Your task to perform on an android device: Add "energizer triple a" to the cart on bestbuy.com Image 0: 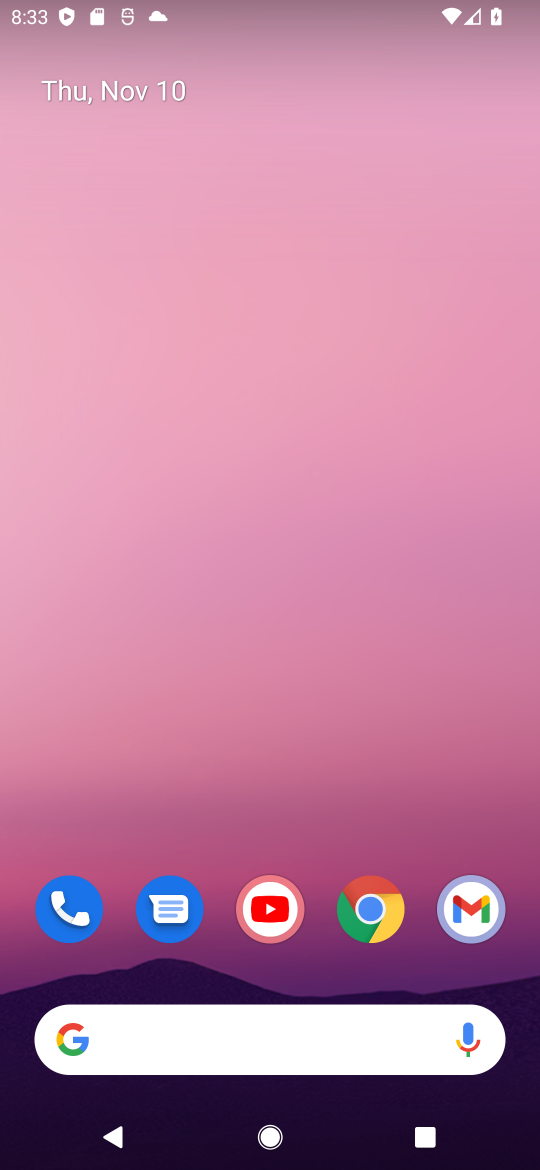
Step 0: drag from (222, 897) to (326, 188)
Your task to perform on an android device: Add "energizer triple a" to the cart on bestbuy.com Image 1: 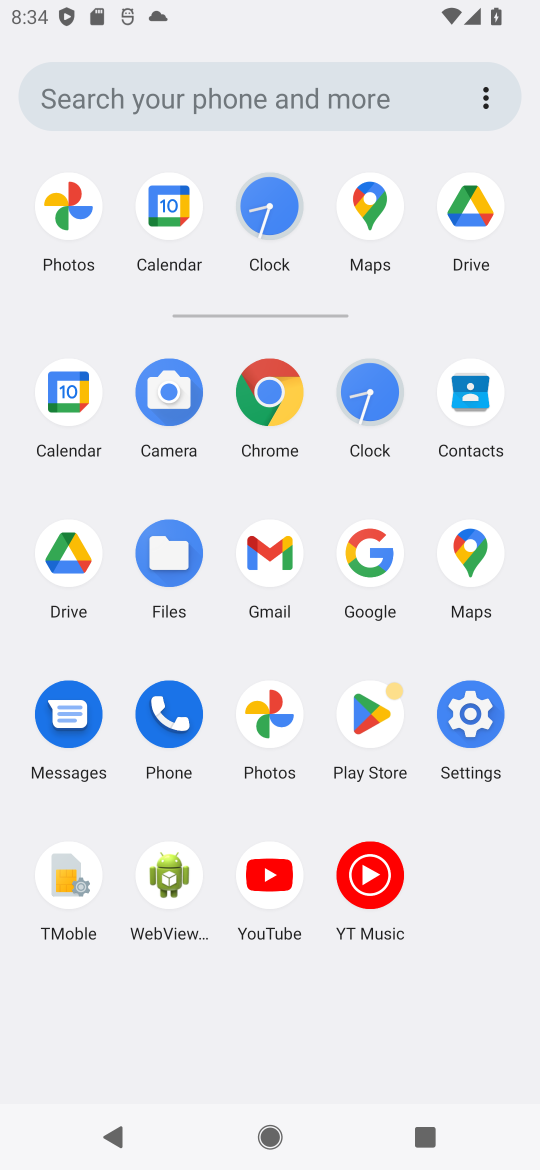
Step 1: click (374, 549)
Your task to perform on an android device: Add "energizer triple a" to the cart on bestbuy.com Image 2: 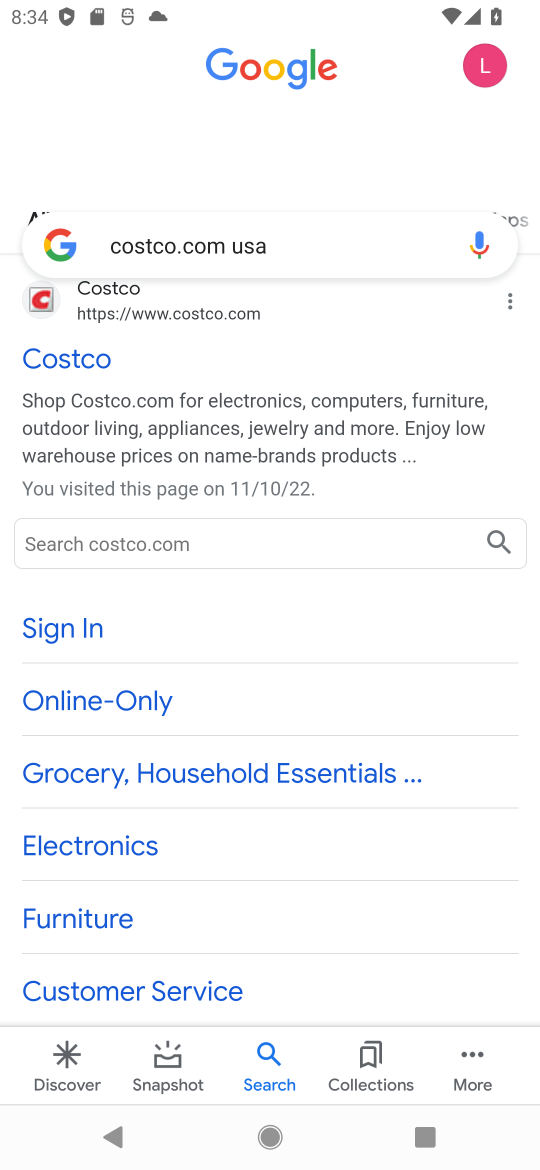
Step 2: click (185, 245)
Your task to perform on an android device: Add "energizer triple a" to the cart on bestbuy.com Image 3: 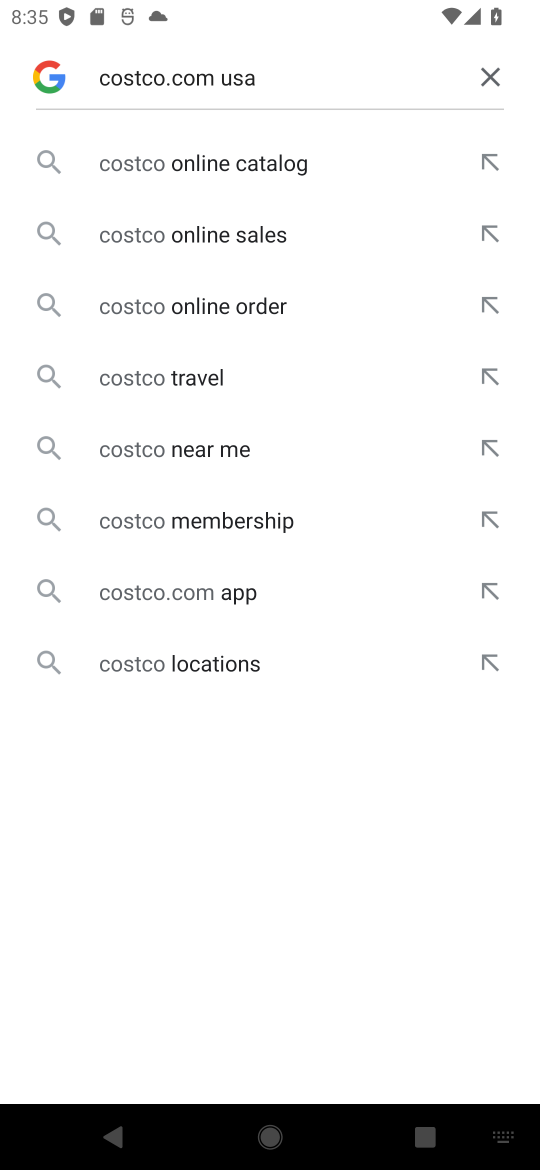
Step 3: click (477, 65)
Your task to perform on an android device: Add "energizer triple a" to the cart on bestbuy.com Image 4: 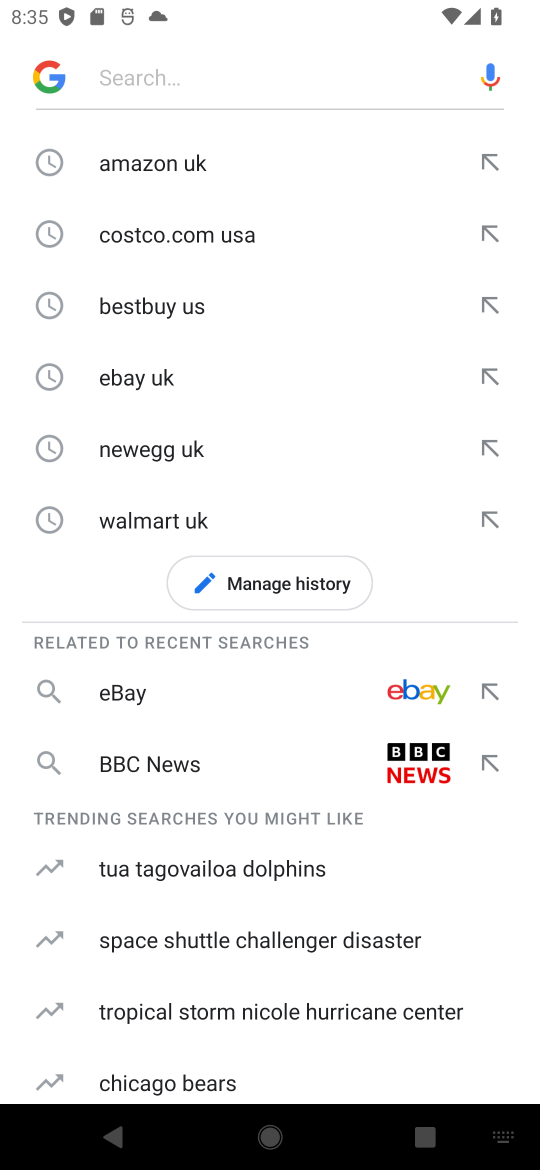
Step 4: click (274, 65)
Your task to perform on an android device: Add "energizer triple a" to the cart on bestbuy.com Image 5: 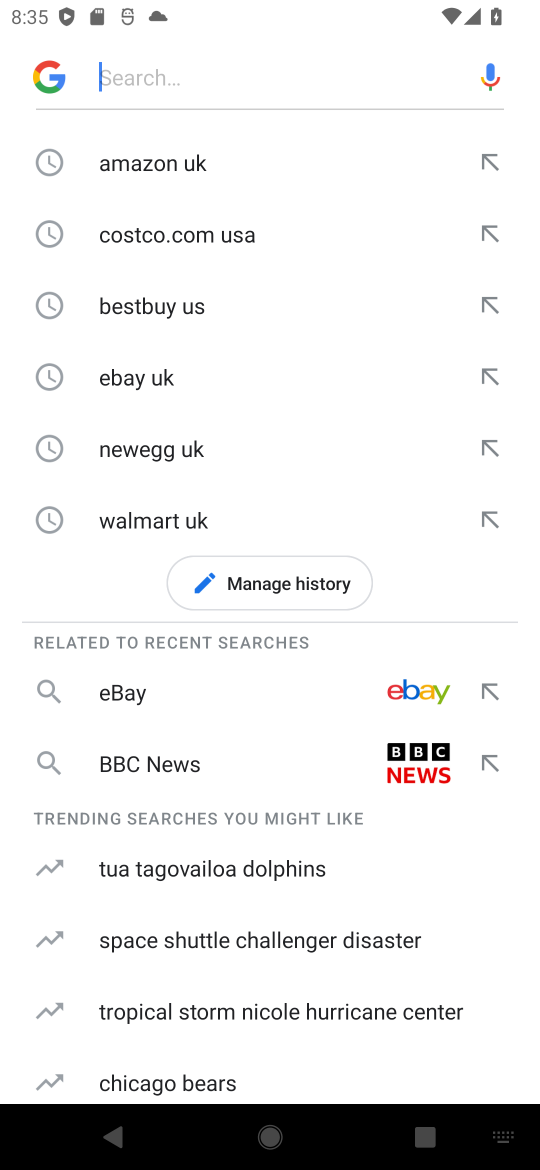
Step 5: type "bestbuy "
Your task to perform on an android device: Add "energizer triple a" to the cart on bestbuy.com Image 6: 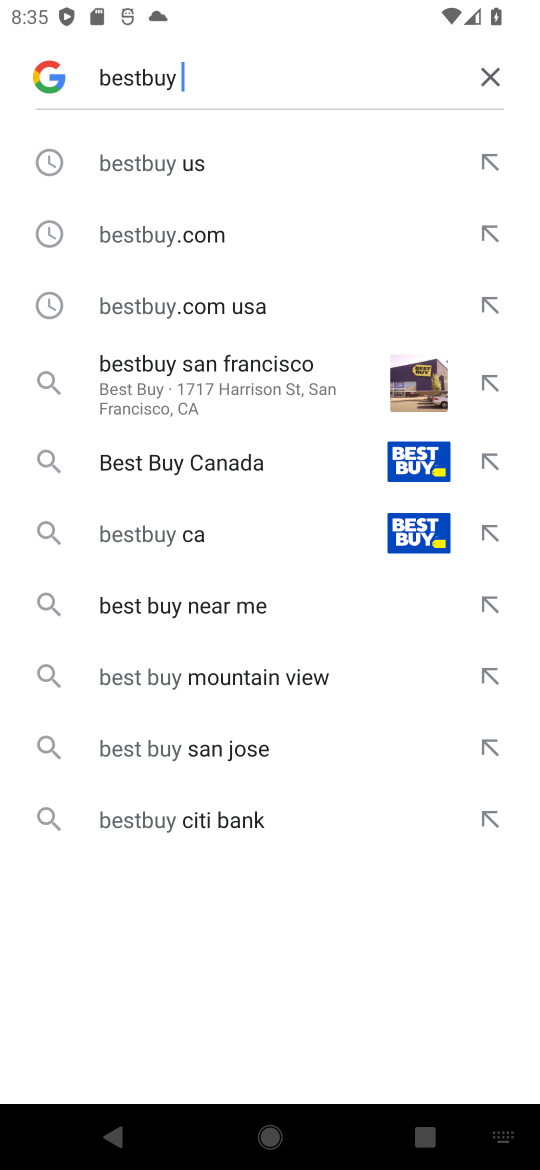
Step 6: click (115, 164)
Your task to perform on an android device: Add "energizer triple a" to the cart on bestbuy.com Image 7: 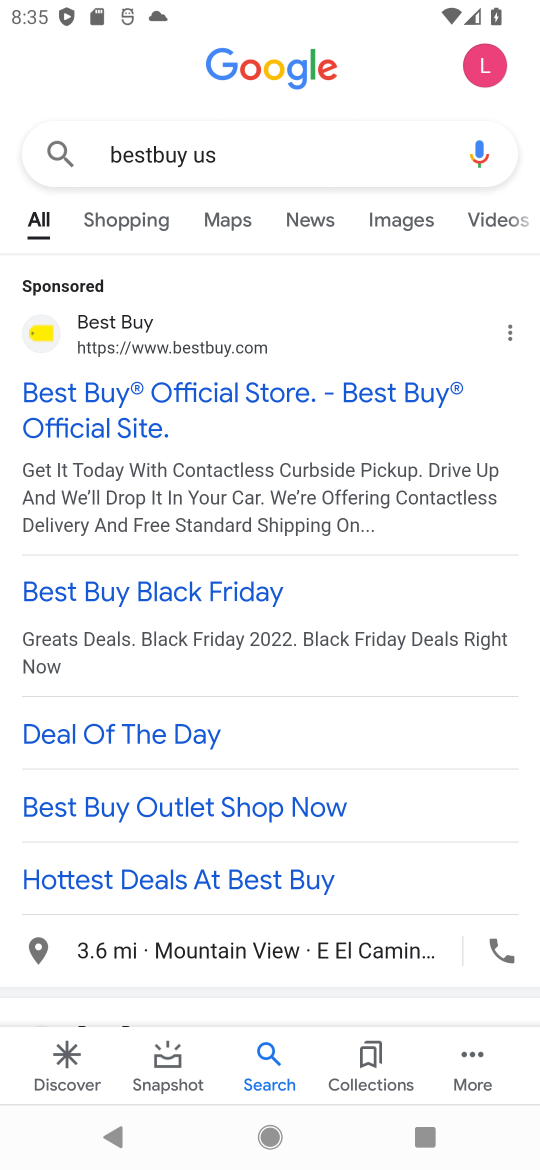
Step 7: click (48, 332)
Your task to perform on an android device: Add "energizer triple a" to the cart on bestbuy.com Image 8: 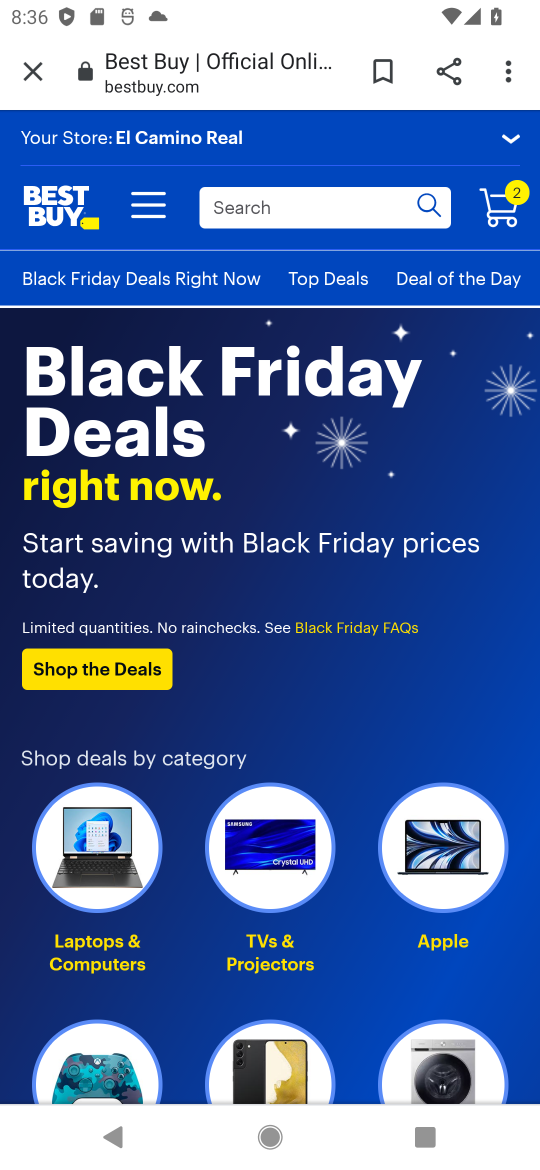
Step 8: click (316, 197)
Your task to perform on an android device: Add "energizer triple a" to the cart on bestbuy.com Image 9: 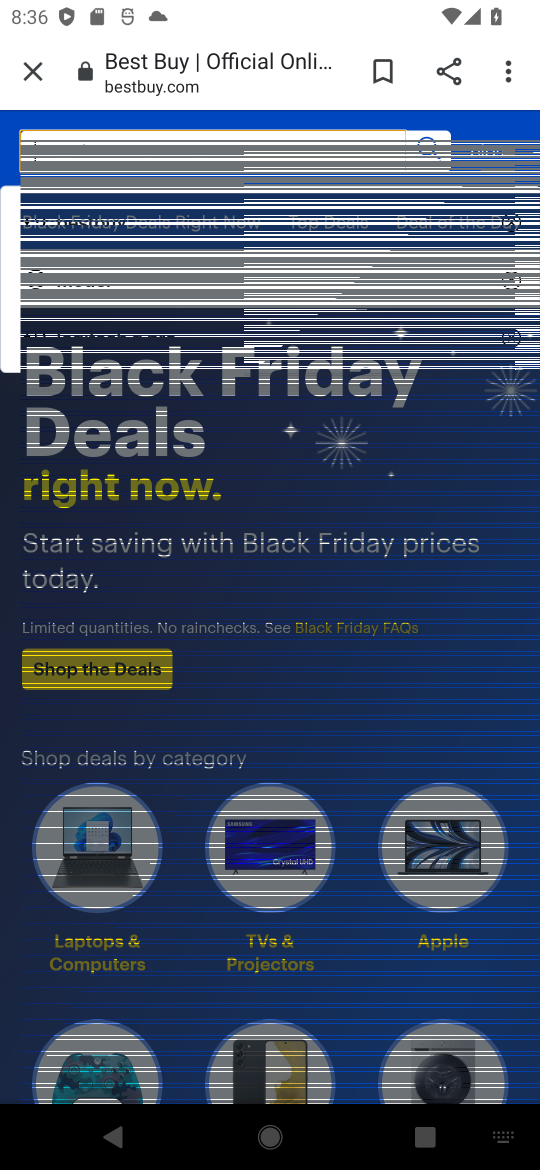
Step 9: type "energizer triple  "
Your task to perform on an android device: Add "energizer triple a" to the cart on bestbuy.com Image 10: 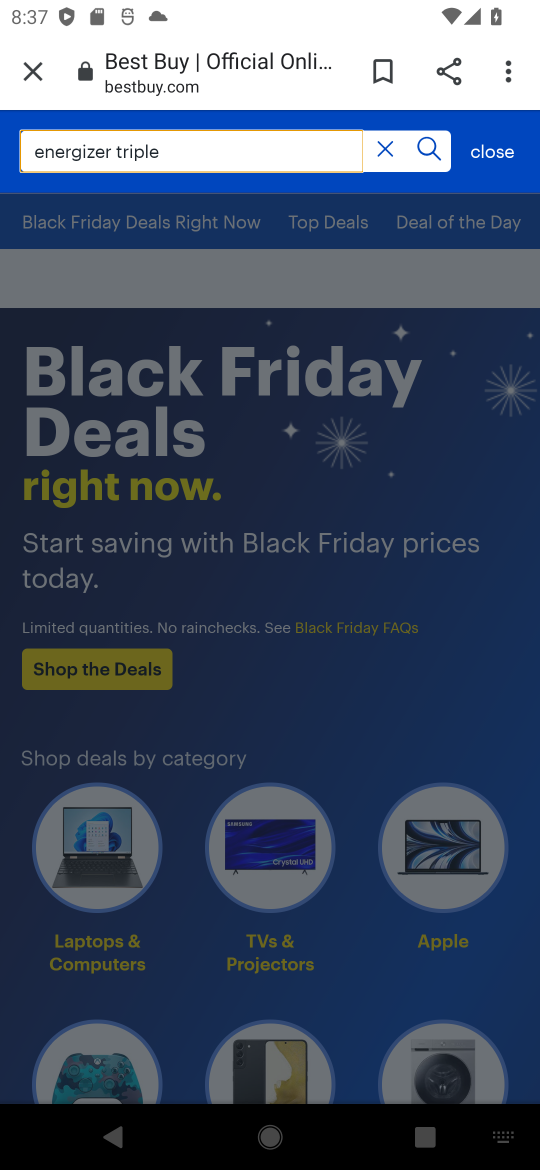
Step 10: click (421, 142)
Your task to perform on an android device: Add "energizer triple a" to the cart on bestbuy.com Image 11: 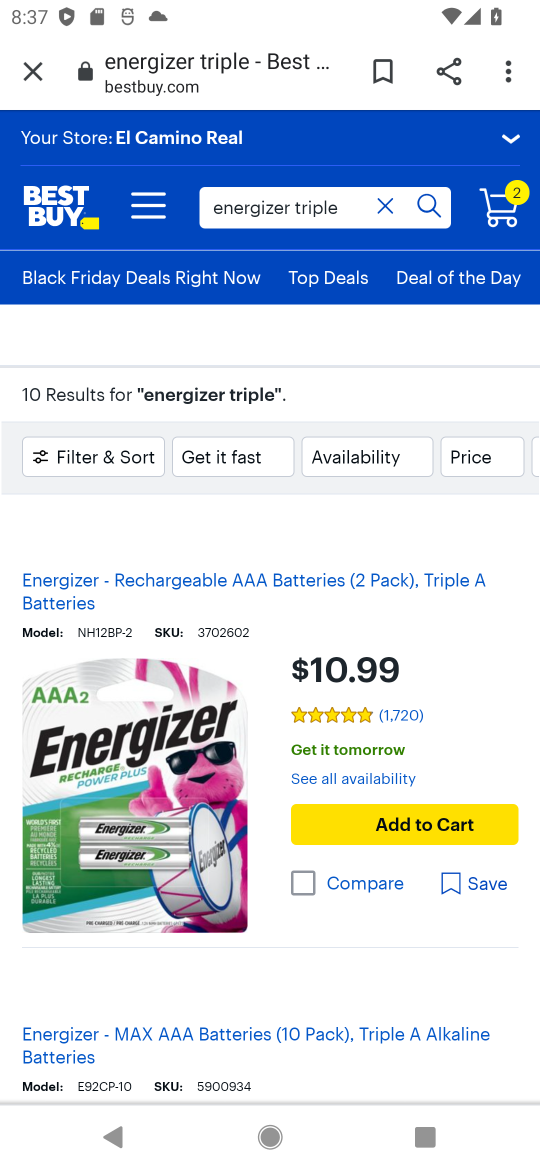
Step 11: click (355, 807)
Your task to perform on an android device: Add "energizer triple a" to the cart on bestbuy.com Image 12: 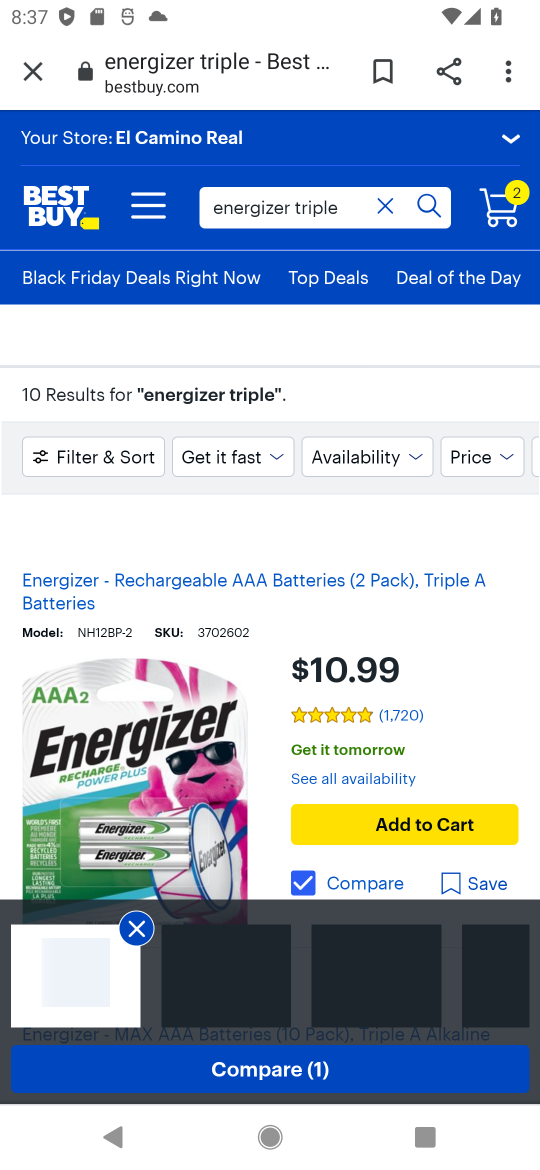
Step 12: click (349, 805)
Your task to perform on an android device: Add "energizer triple a" to the cart on bestbuy.com Image 13: 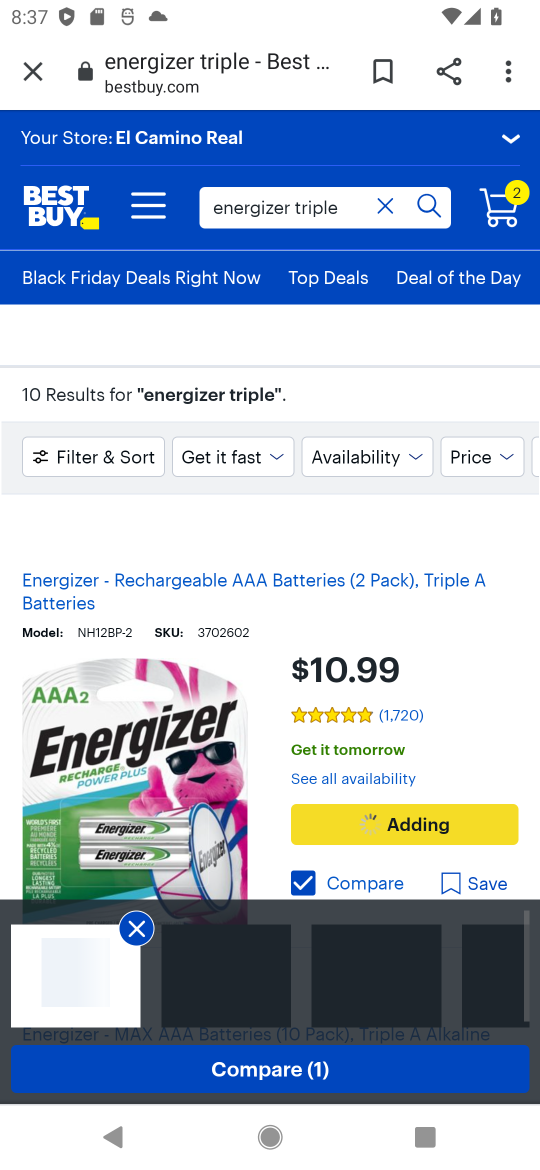
Step 13: click (305, 885)
Your task to perform on an android device: Add "energizer triple a" to the cart on bestbuy.com Image 14: 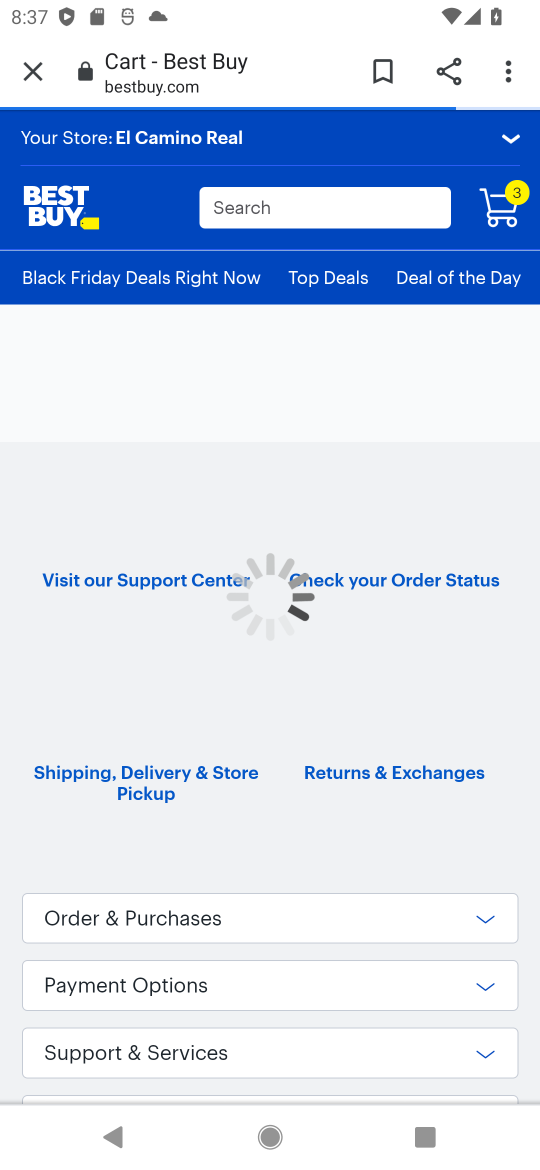
Step 14: task complete